Your task to perform on an android device: toggle priority inbox in the gmail app Image 0: 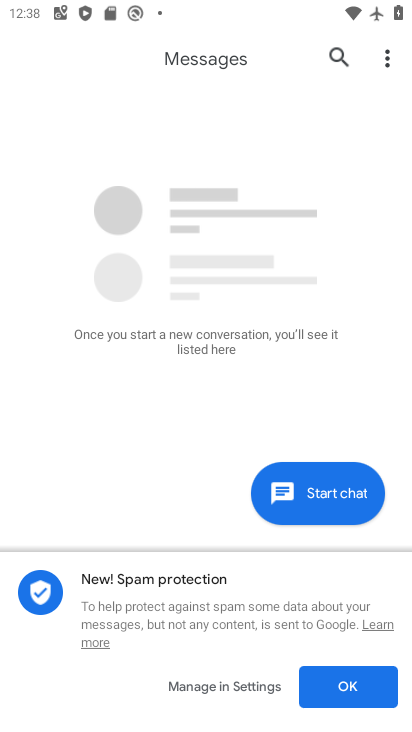
Step 0: press home button
Your task to perform on an android device: toggle priority inbox in the gmail app Image 1: 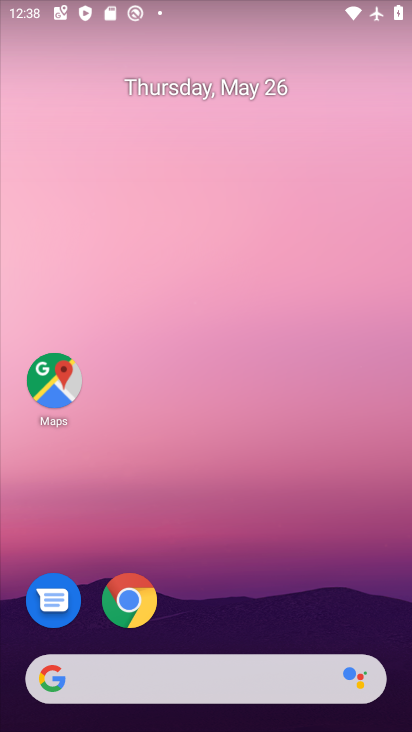
Step 1: drag from (244, 548) to (248, 120)
Your task to perform on an android device: toggle priority inbox in the gmail app Image 2: 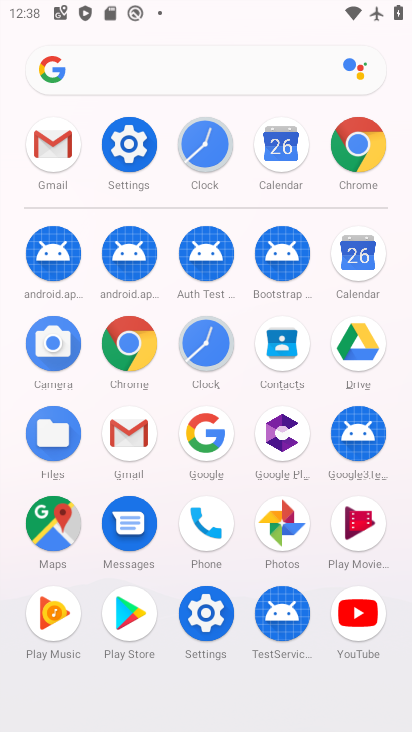
Step 2: click (53, 152)
Your task to perform on an android device: toggle priority inbox in the gmail app Image 3: 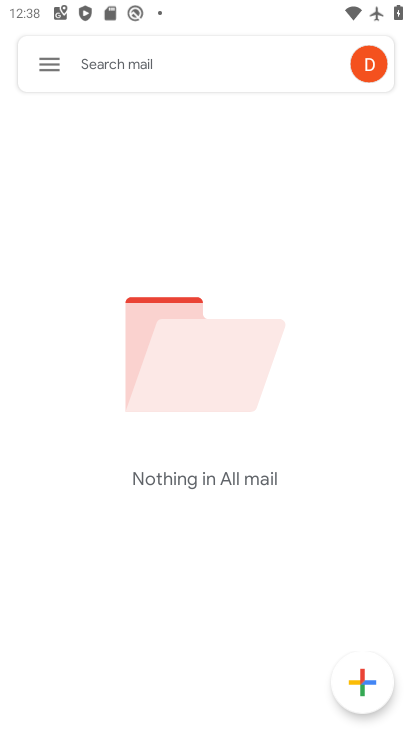
Step 3: click (53, 67)
Your task to perform on an android device: toggle priority inbox in the gmail app Image 4: 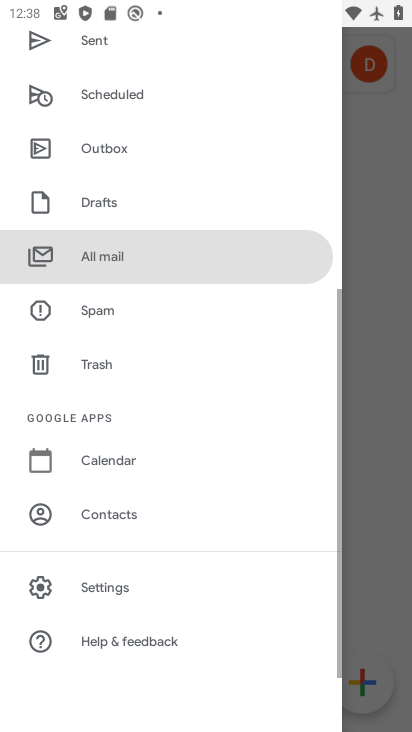
Step 4: click (133, 593)
Your task to perform on an android device: toggle priority inbox in the gmail app Image 5: 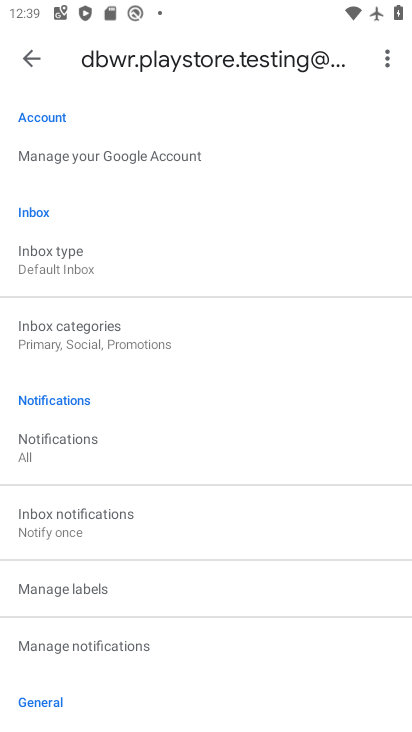
Step 5: click (158, 252)
Your task to perform on an android device: toggle priority inbox in the gmail app Image 6: 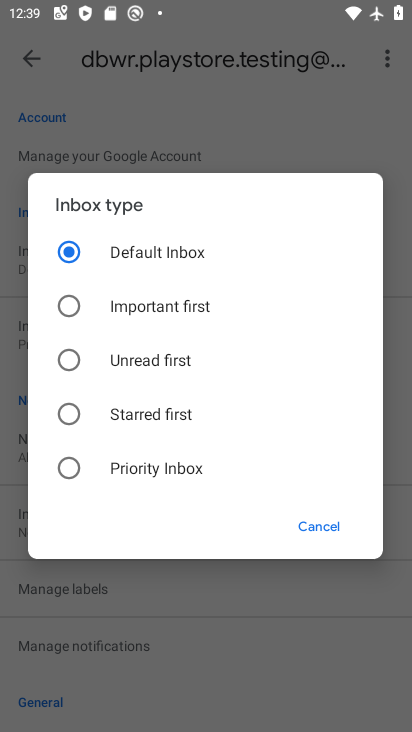
Step 6: click (139, 468)
Your task to perform on an android device: toggle priority inbox in the gmail app Image 7: 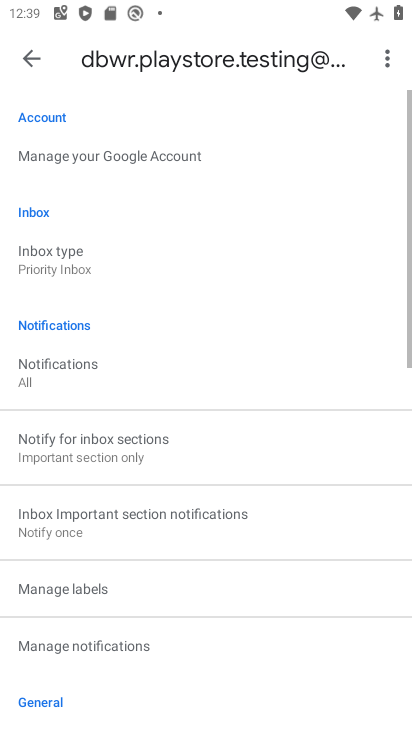
Step 7: task complete